Your task to perform on an android device: add a contact Image 0: 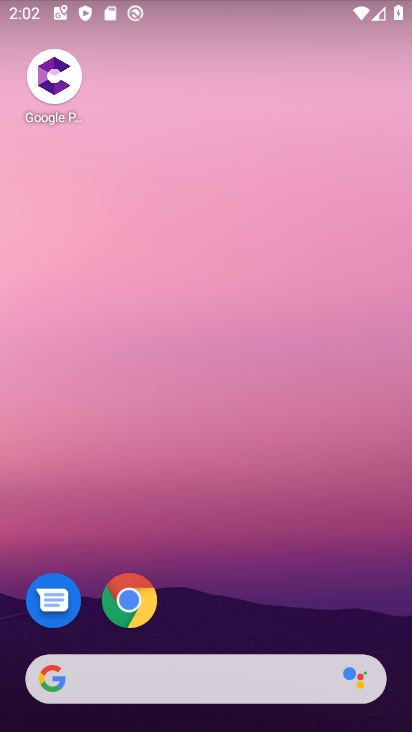
Step 0: drag from (227, 570) to (231, 209)
Your task to perform on an android device: add a contact Image 1: 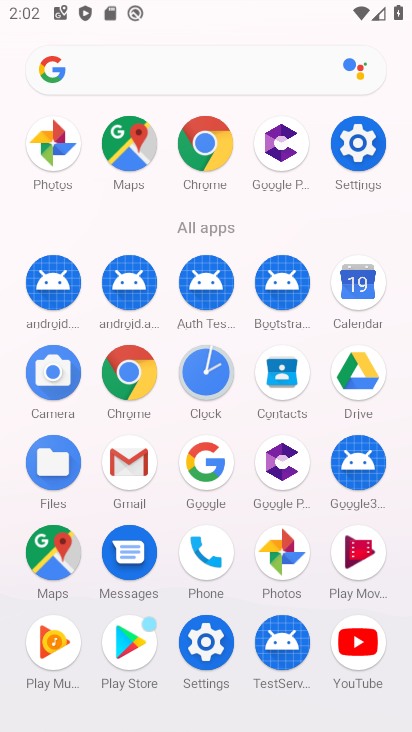
Step 1: click (208, 559)
Your task to perform on an android device: add a contact Image 2: 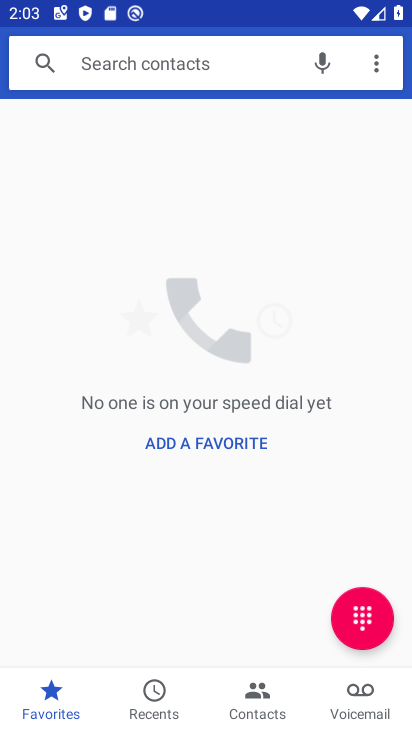
Step 2: click (255, 702)
Your task to perform on an android device: add a contact Image 3: 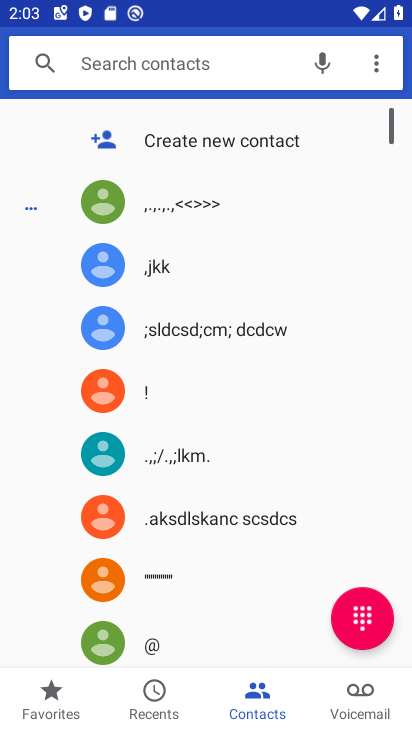
Step 3: drag from (203, 619) to (203, 312)
Your task to perform on an android device: add a contact Image 4: 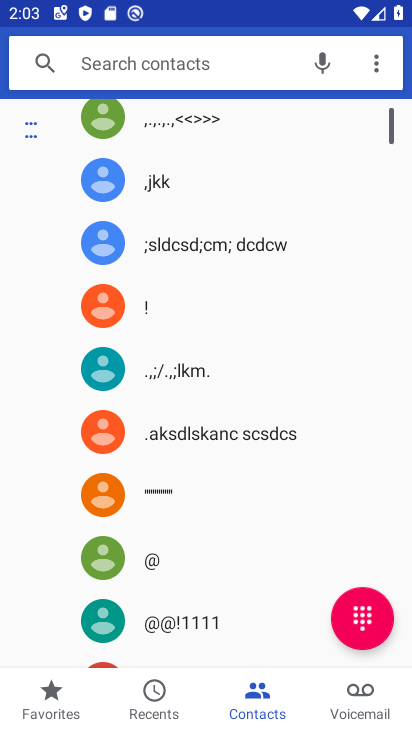
Step 4: click (384, 61)
Your task to perform on an android device: add a contact Image 5: 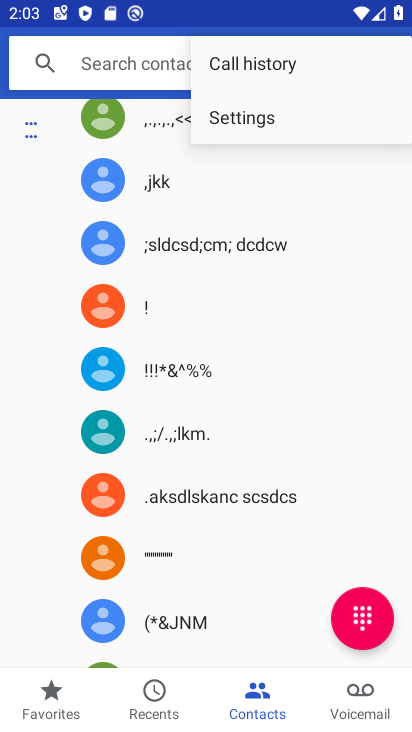
Step 5: click (349, 614)
Your task to perform on an android device: add a contact Image 6: 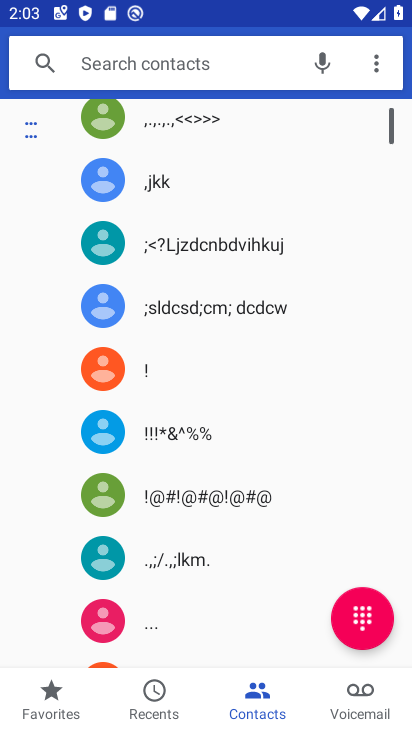
Step 6: click (364, 627)
Your task to perform on an android device: add a contact Image 7: 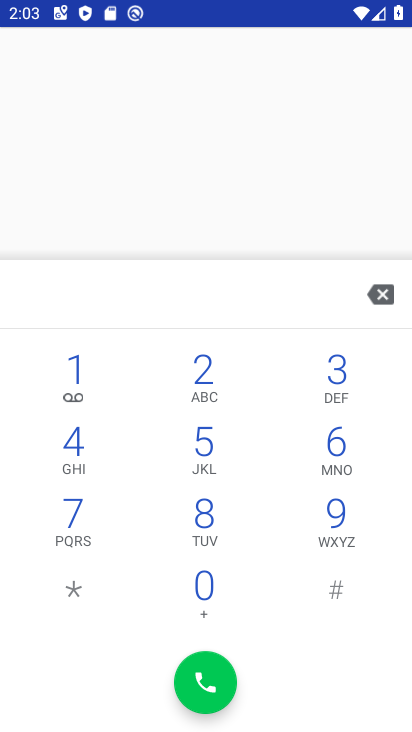
Step 7: type "8004567434"
Your task to perform on an android device: add a contact Image 8: 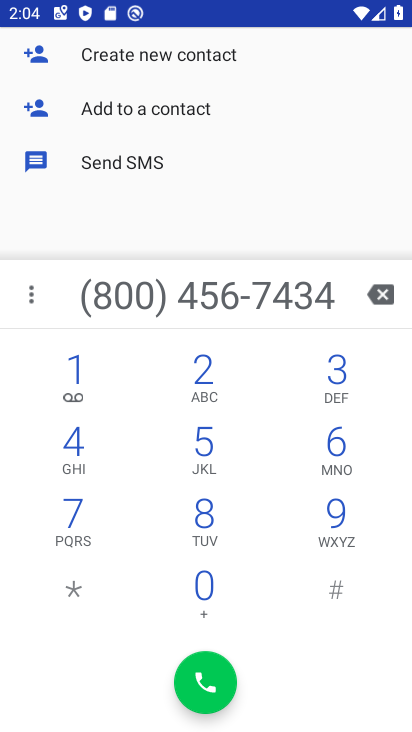
Step 8: click (185, 108)
Your task to perform on an android device: add a contact Image 9: 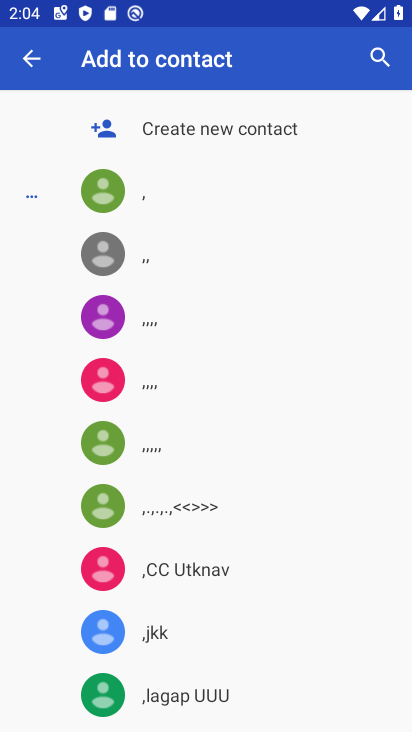
Step 9: click (190, 126)
Your task to perform on an android device: add a contact Image 10: 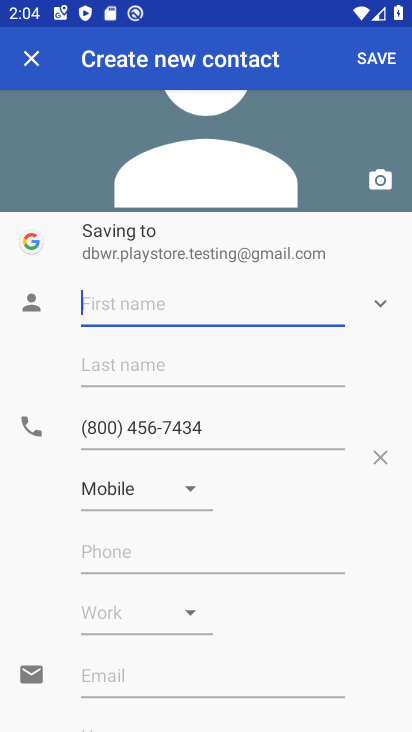
Step 10: type "juli"
Your task to perform on an android device: add a contact Image 11: 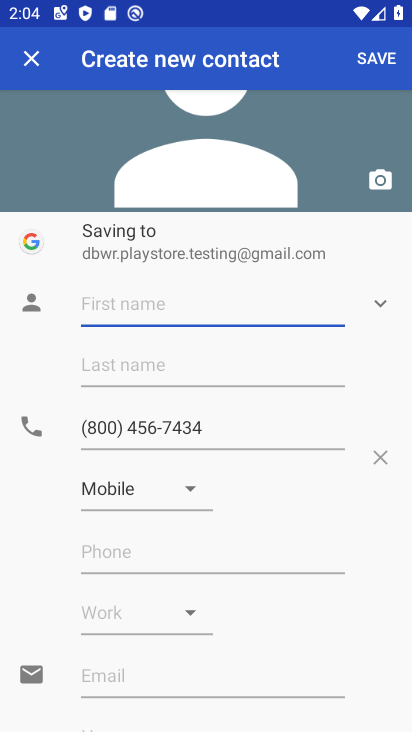
Step 11: click (147, 365)
Your task to perform on an android device: add a contact Image 12: 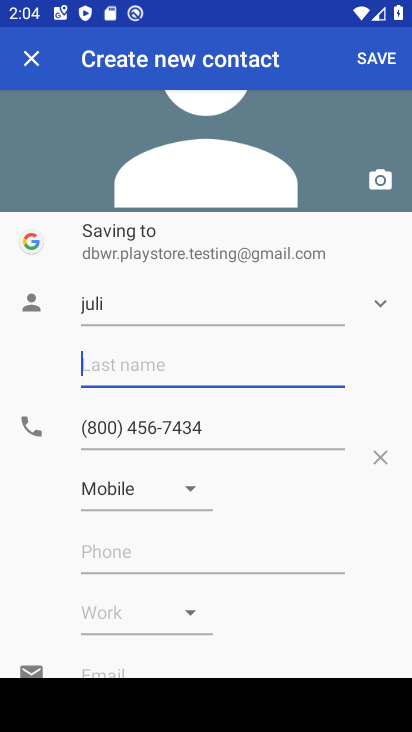
Step 12: type "khupa"
Your task to perform on an android device: add a contact Image 13: 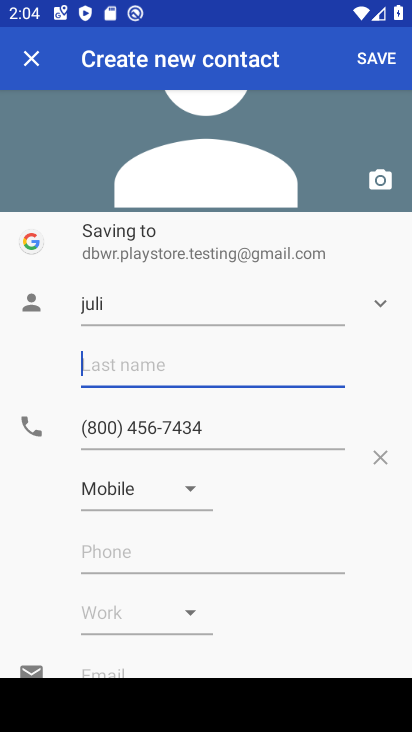
Step 13: click (378, 55)
Your task to perform on an android device: add a contact Image 14: 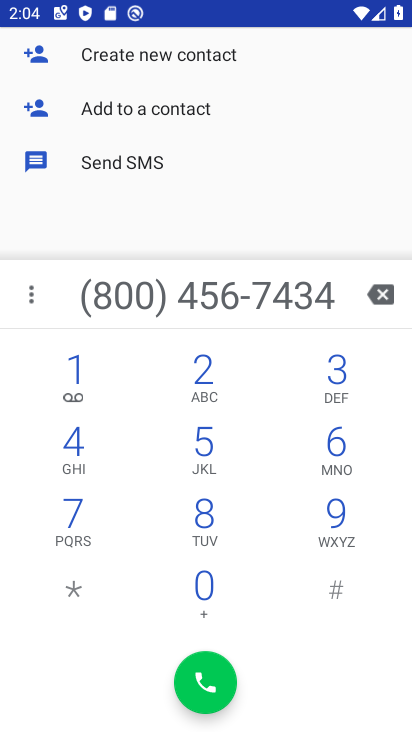
Step 14: task complete